Your task to perform on an android device: What's on my calendar today? Image 0: 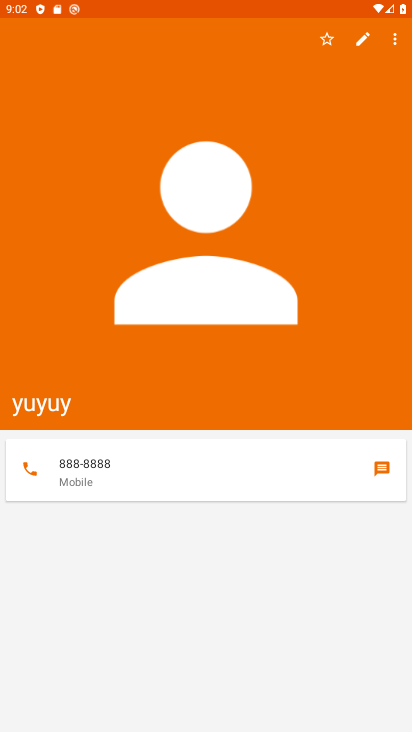
Step 0: press home button
Your task to perform on an android device: What's on my calendar today? Image 1: 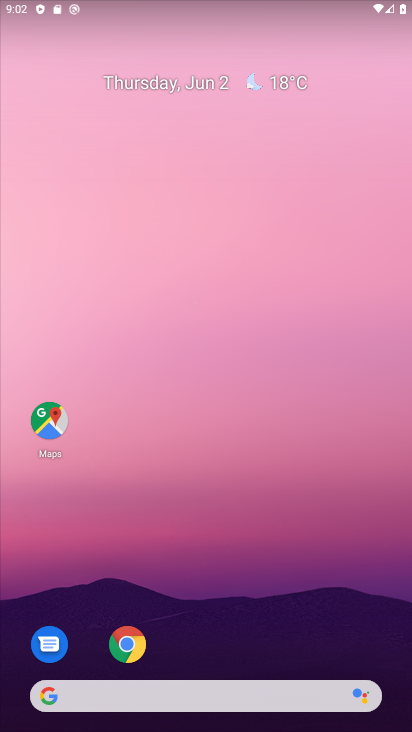
Step 1: drag from (190, 659) to (244, 211)
Your task to perform on an android device: What's on my calendar today? Image 2: 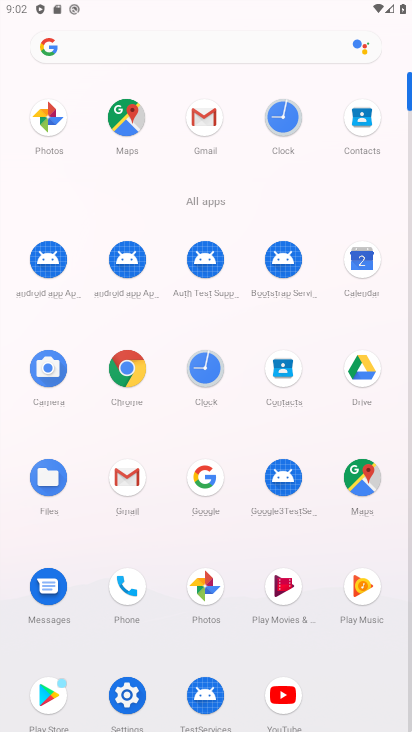
Step 2: click (354, 260)
Your task to perform on an android device: What's on my calendar today? Image 3: 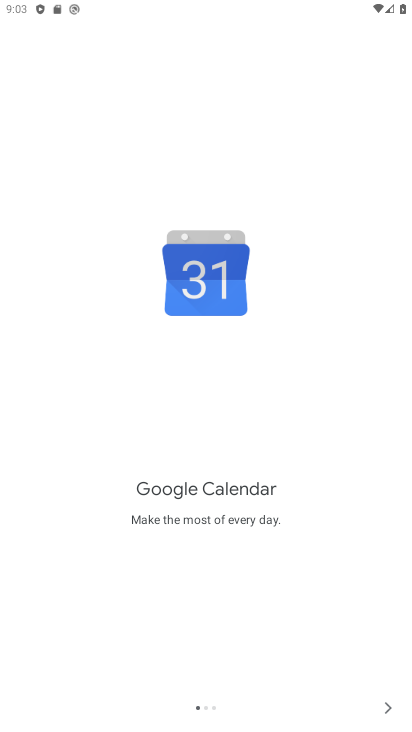
Step 3: click (394, 718)
Your task to perform on an android device: What's on my calendar today? Image 4: 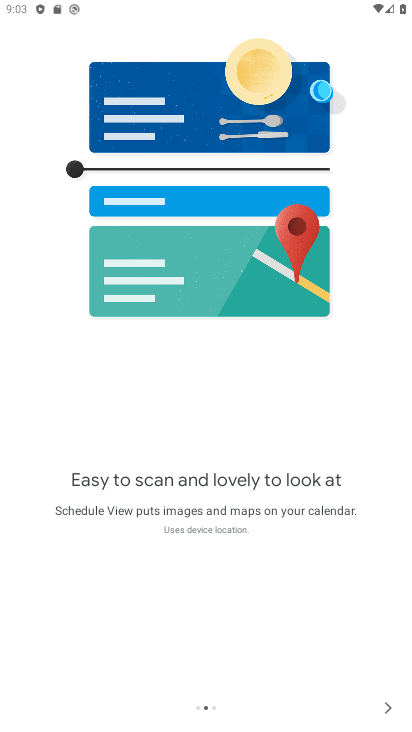
Step 4: click (395, 713)
Your task to perform on an android device: What's on my calendar today? Image 5: 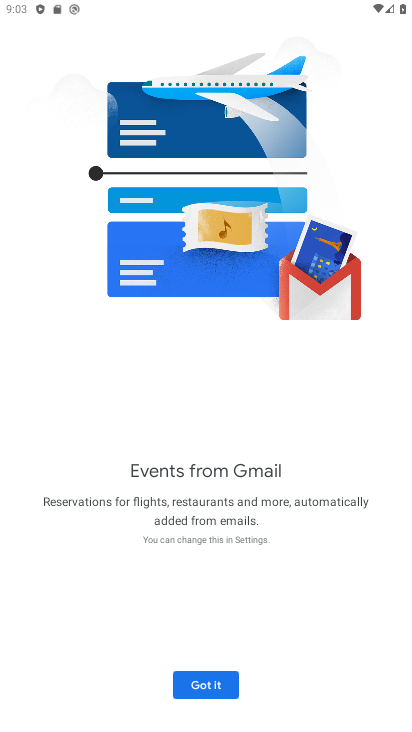
Step 5: click (204, 682)
Your task to perform on an android device: What's on my calendar today? Image 6: 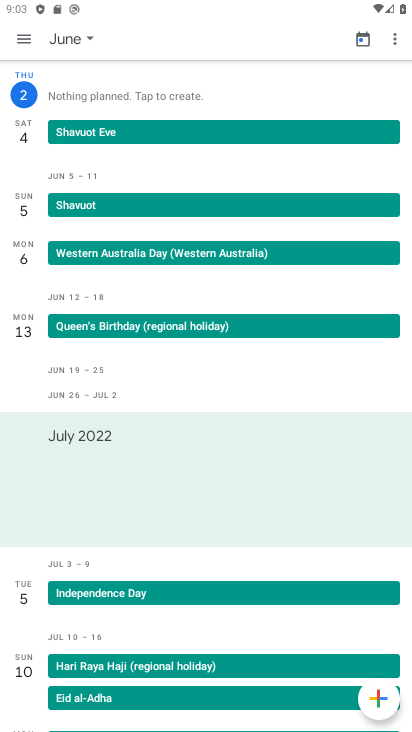
Step 6: click (35, 102)
Your task to perform on an android device: What's on my calendar today? Image 7: 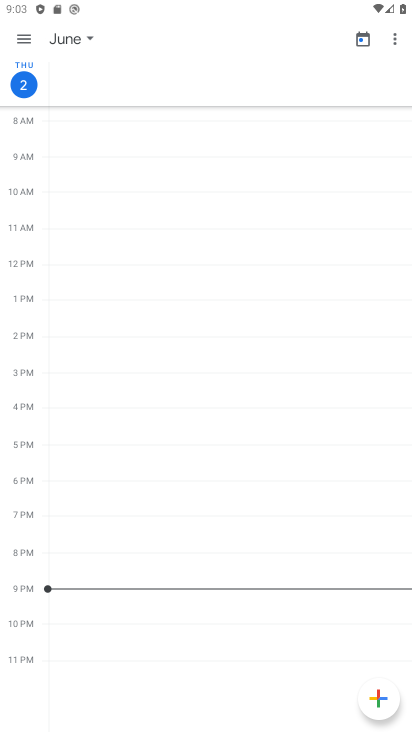
Step 7: task complete